Your task to perform on an android device: Open calendar and show me the fourth week of next month Image 0: 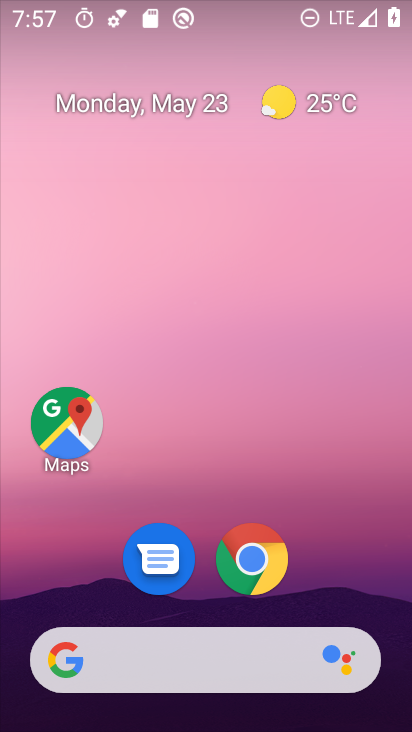
Step 0: drag from (374, 526) to (254, 28)
Your task to perform on an android device: Open calendar and show me the fourth week of next month Image 1: 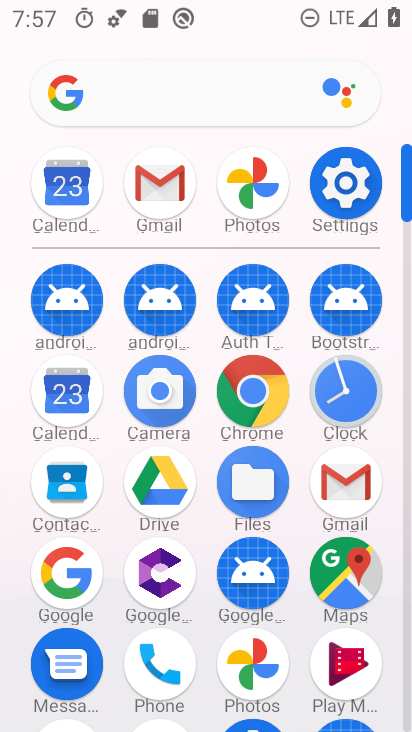
Step 1: click (78, 404)
Your task to perform on an android device: Open calendar and show me the fourth week of next month Image 2: 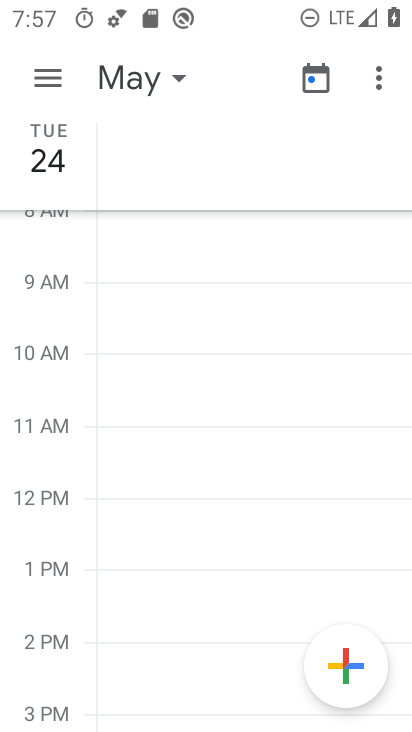
Step 2: click (144, 78)
Your task to perform on an android device: Open calendar and show me the fourth week of next month Image 3: 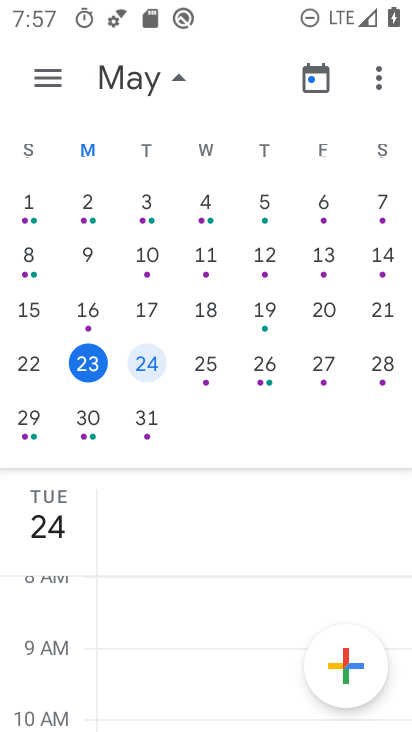
Step 3: drag from (364, 278) to (19, 319)
Your task to perform on an android device: Open calendar and show me the fourth week of next month Image 4: 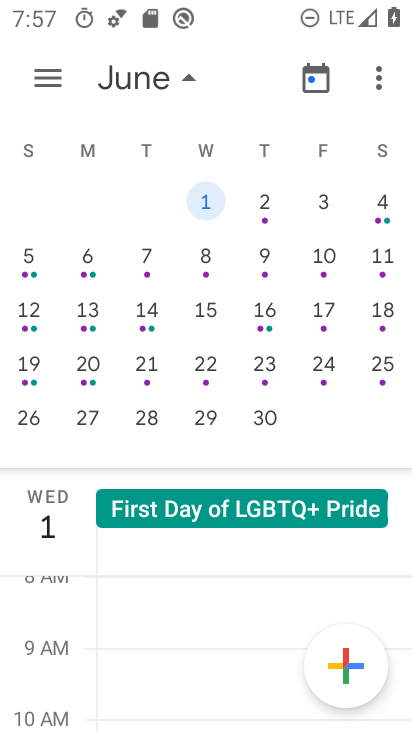
Step 4: click (207, 423)
Your task to perform on an android device: Open calendar and show me the fourth week of next month Image 5: 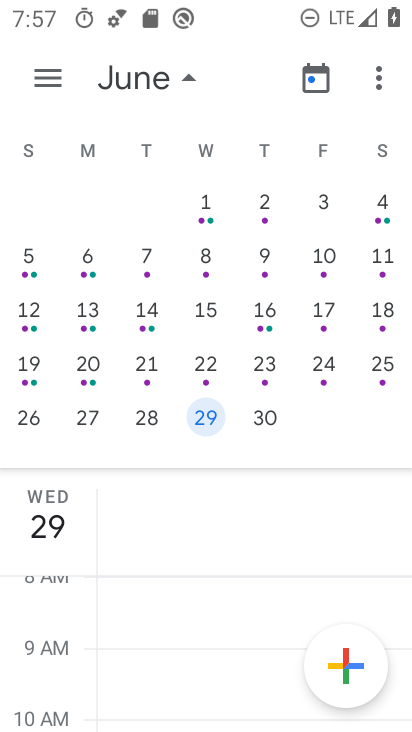
Step 5: task complete